Your task to perform on an android device: star an email in the gmail app Image 0: 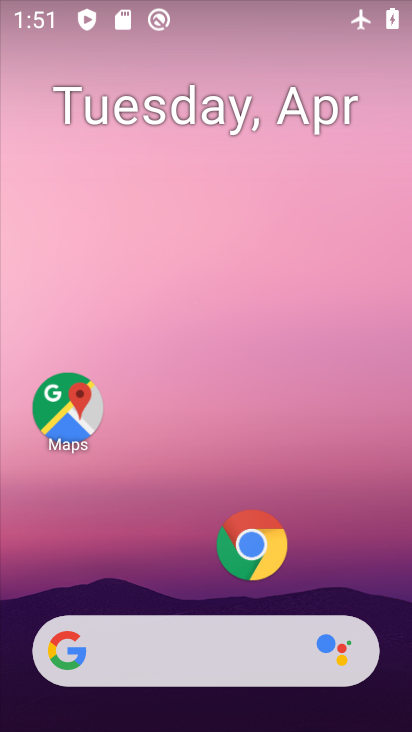
Step 0: drag from (158, 547) to (189, 209)
Your task to perform on an android device: star an email in the gmail app Image 1: 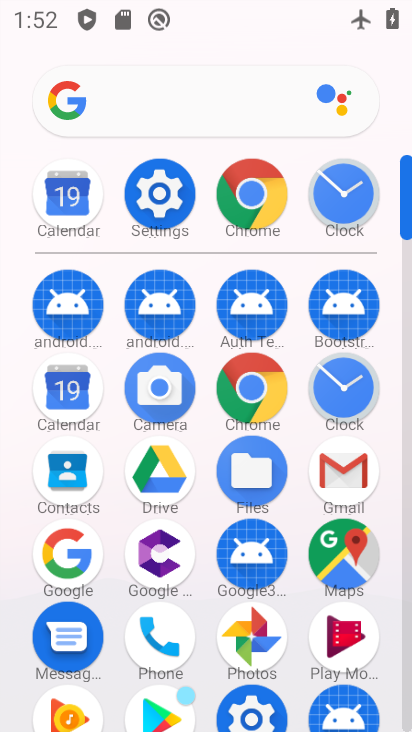
Step 1: click (335, 469)
Your task to perform on an android device: star an email in the gmail app Image 2: 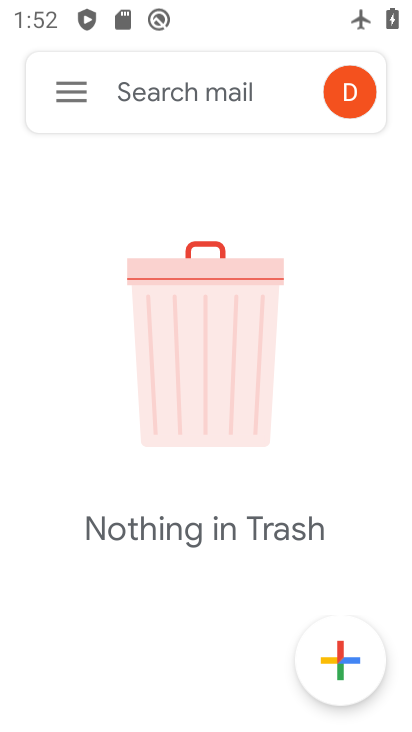
Step 2: click (69, 92)
Your task to perform on an android device: star an email in the gmail app Image 3: 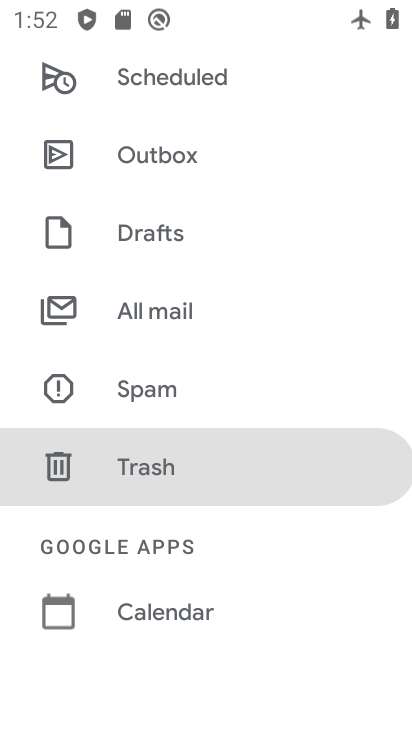
Step 3: drag from (165, 128) to (163, 609)
Your task to perform on an android device: star an email in the gmail app Image 4: 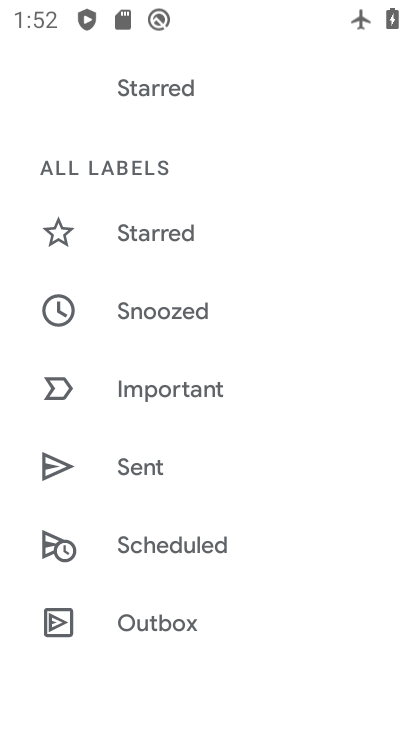
Step 4: drag from (186, 174) to (190, 461)
Your task to perform on an android device: star an email in the gmail app Image 5: 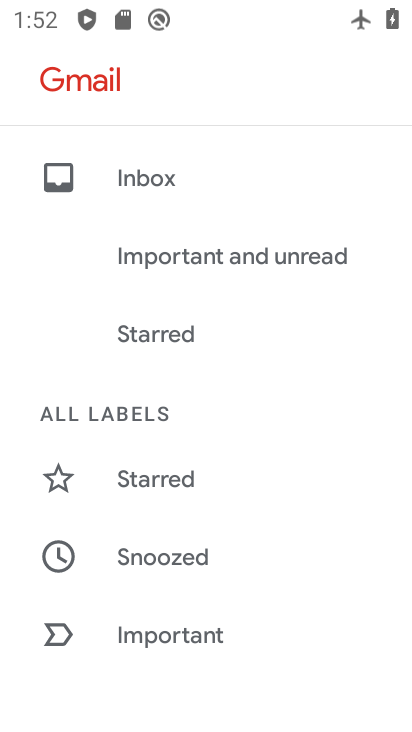
Step 5: click (206, 473)
Your task to perform on an android device: star an email in the gmail app Image 6: 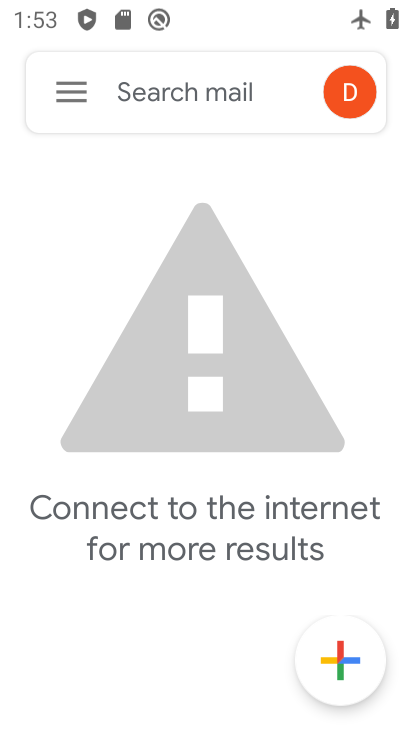
Step 6: task complete